Your task to perform on an android device: check storage Image 0: 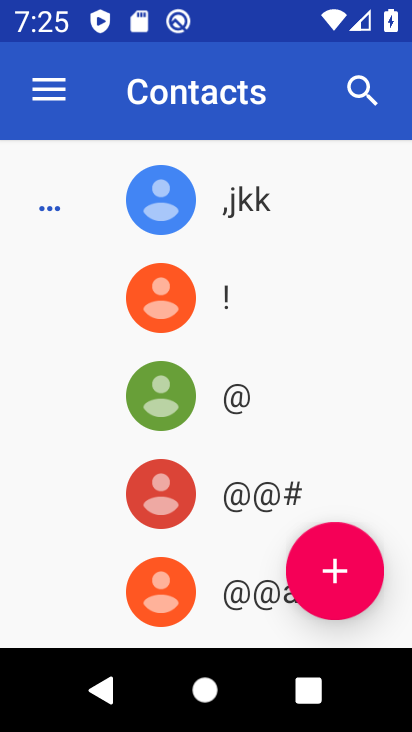
Step 0: press home button
Your task to perform on an android device: check storage Image 1: 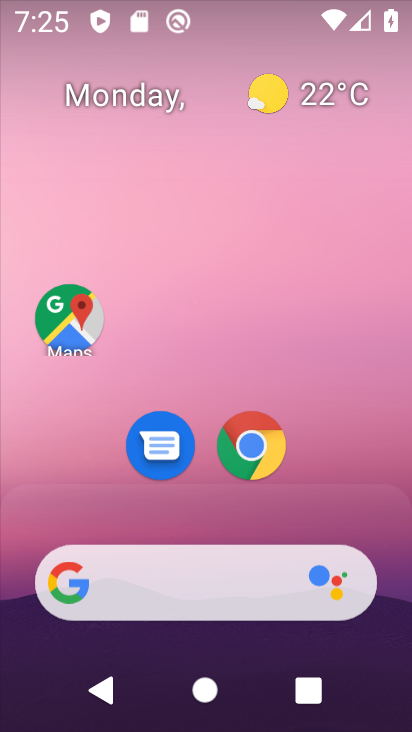
Step 1: click (339, 193)
Your task to perform on an android device: check storage Image 2: 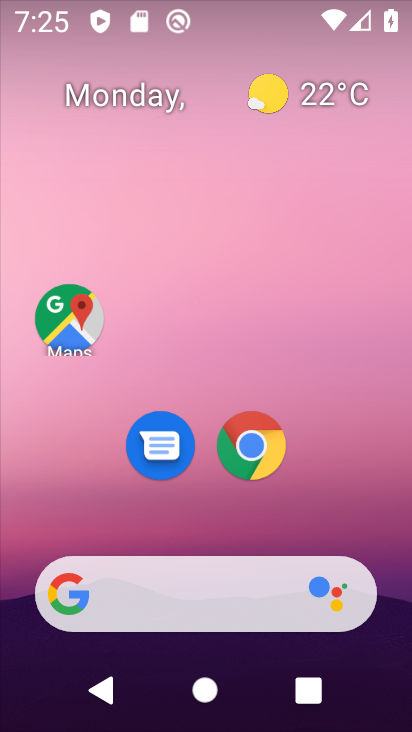
Step 2: drag from (338, 476) to (308, 154)
Your task to perform on an android device: check storage Image 3: 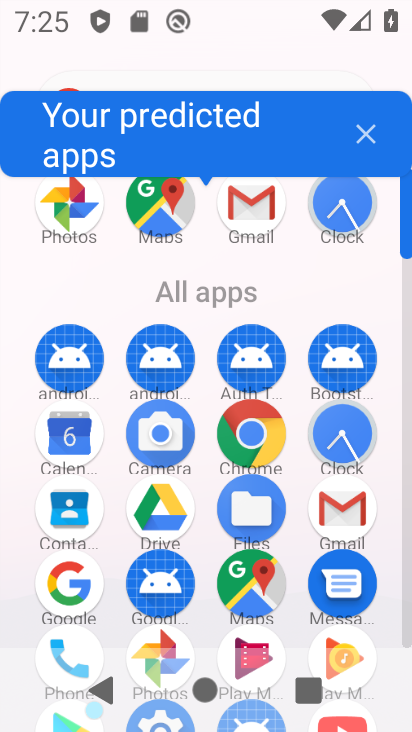
Step 3: drag from (113, 616) to (129, 409)
Your task to perform on an android device: check storage Image 4: 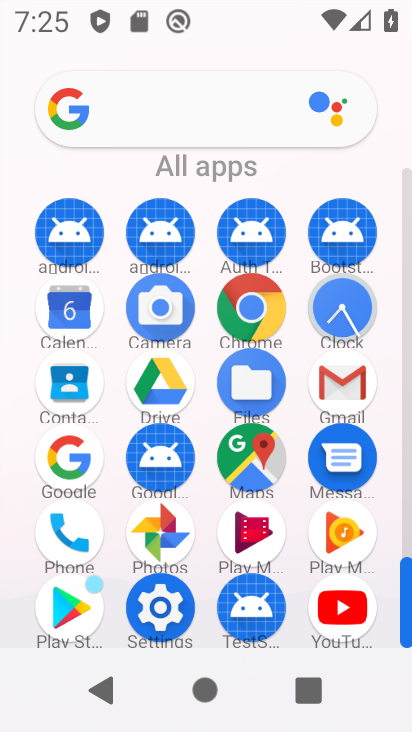
Step 4: click (180, 602)
Your task to perform on an android device: check storage Image 5: 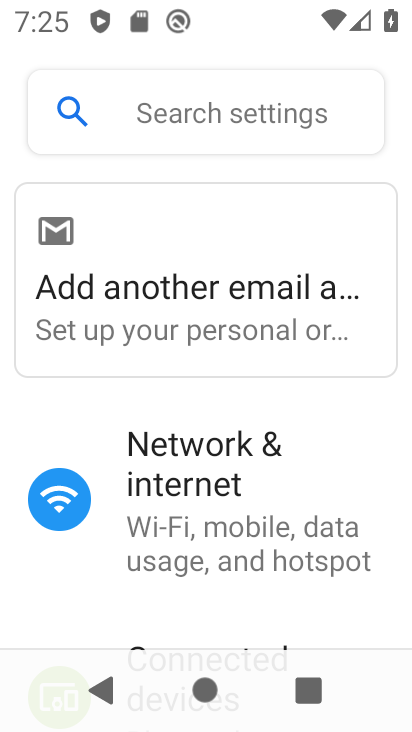
Step 5: drag from (356, 608) to (385, 18)
Your task to perform on an android device: check storage Image 6: 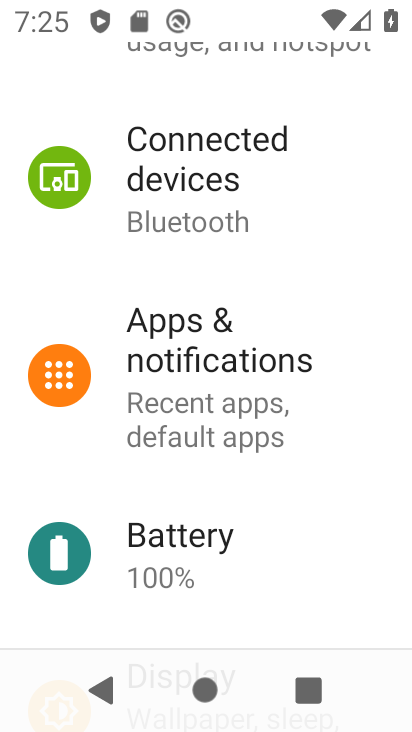
Step 6: drag from (303, 552) to (362, 92)
Your task to perform on an android device: check storage Image 7: 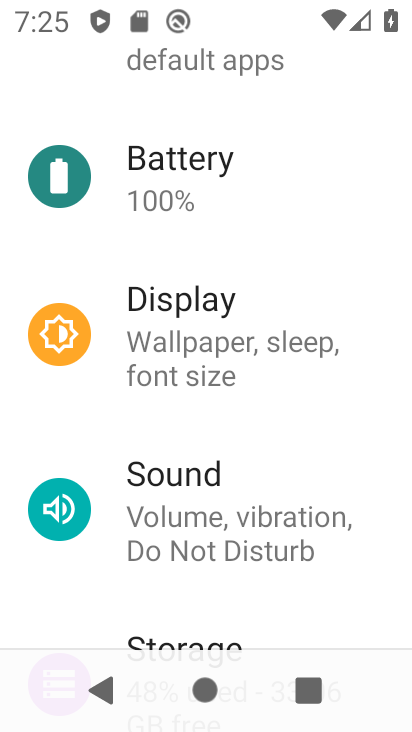
Step 7: drag from (263, 621) to (283, 405)
Your task to perform on an android device: check storage Image 8: 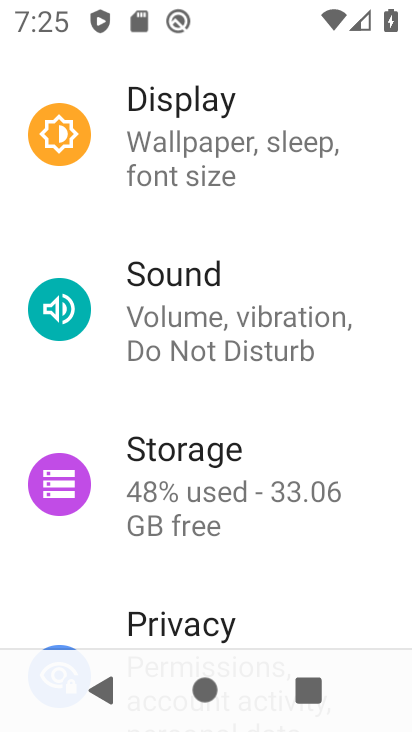
Step 8: click (174, 471)
Your task to perform on an android device: check storage Image 9: 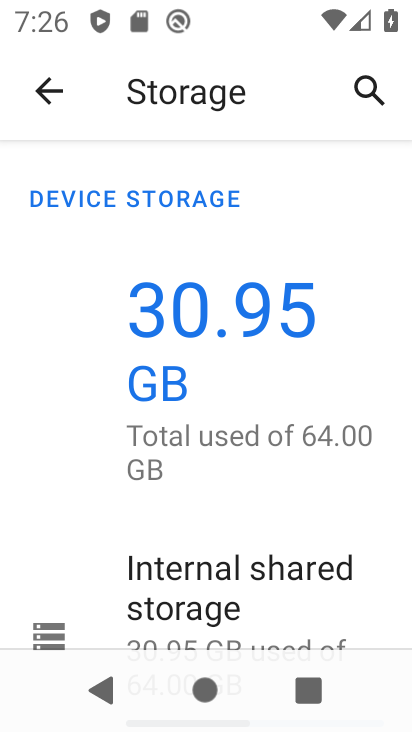
Step 9: task complete